Your task to perform on an android device: turn off improve location accuracy Image 0: 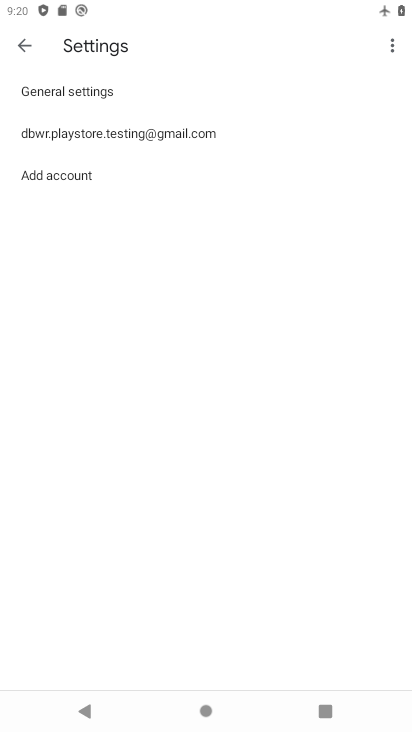
Step 0: press home button
Your task to perform on an android device: turn off improve location accuracy Image 1: 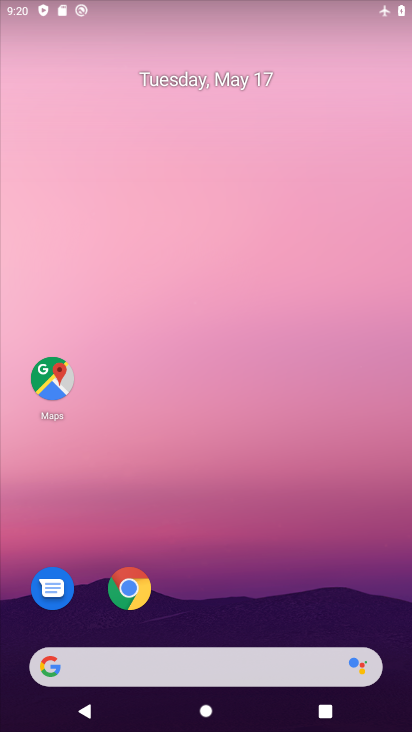
Step 1: drag from (248, 711) to (252, 246)
Your task to perform on an android device: turn off improve location accuracy Image 2: 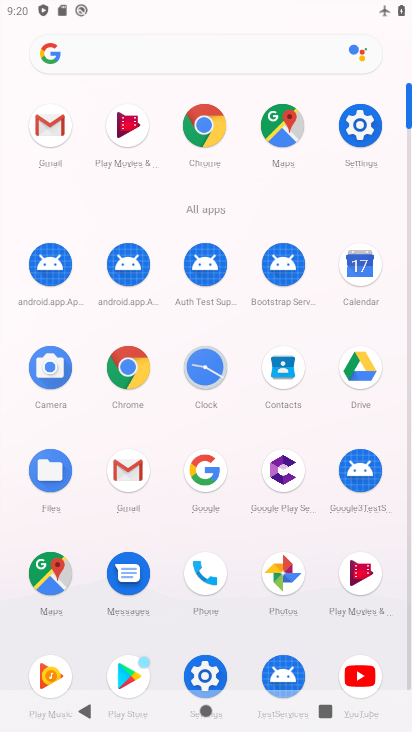
Step 2: click (365, 131)
Your task to perform on an android device: turn off improve location accuracy Image 3: 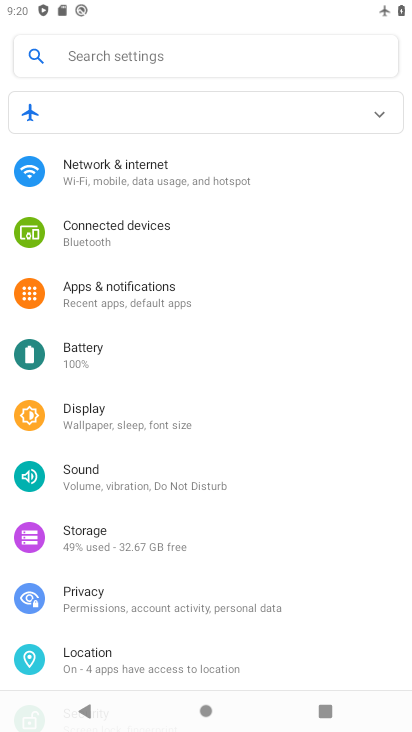
Step 3: click (81, 657)
Your task to perform on an android device: turn off improve location accuracy Image 4: 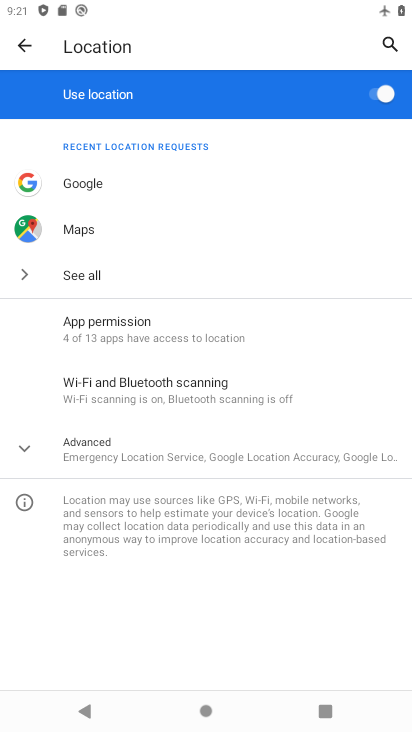
Step 4: click (83, 443)
Your task to perform on an android device: turn off improve location accuracy Image 5: 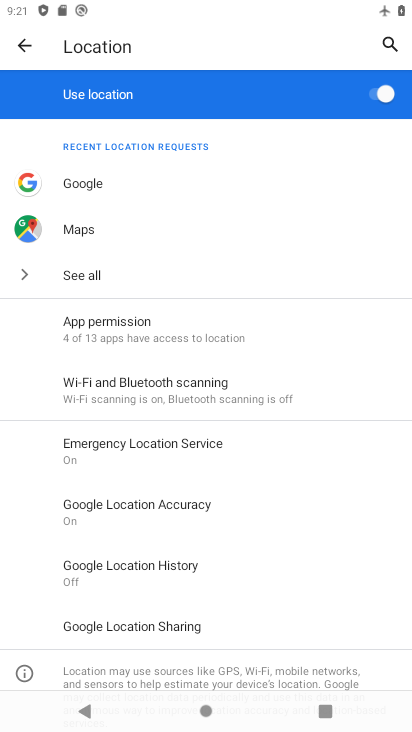
Step 5: click (129, 504)
Your task to perform on an android device: turn off improve location accuracy Image 6: 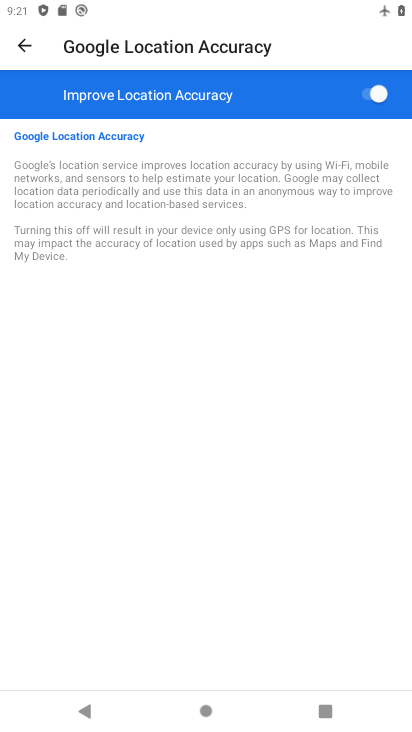
Step 6: click (374, 98)
Your task to perform on an android device: turn off improve location accuracy Image 7: 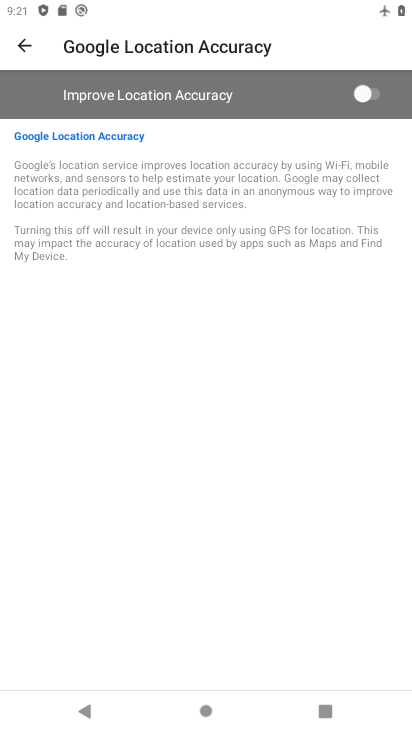
Step 7: task complete